Your task to perform on an android device: What's the weather going to be tomorrow? Image 0: 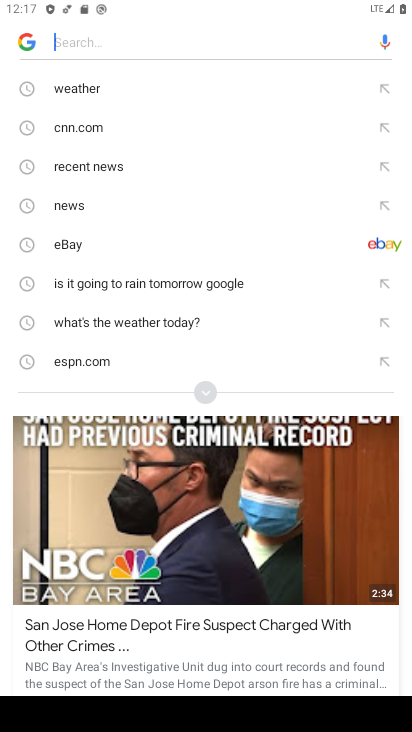
Step 0: click (76, 89)
Your task to perform on an android device: What's the weather going to be tomorrow? Image 1: 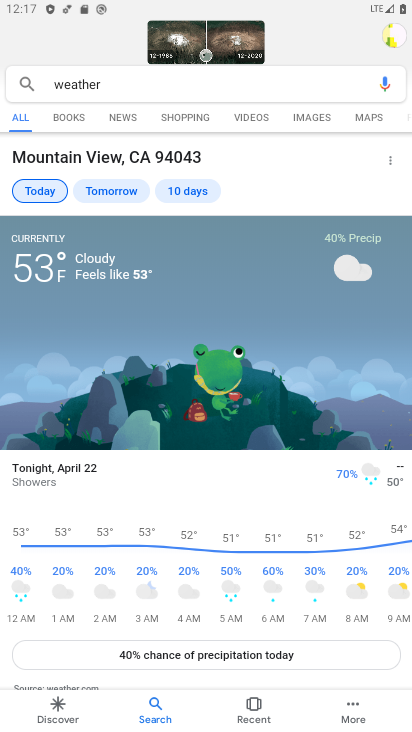
Step 1: task complete